Your task to perform on an android device: change keyboard looks Image 0: 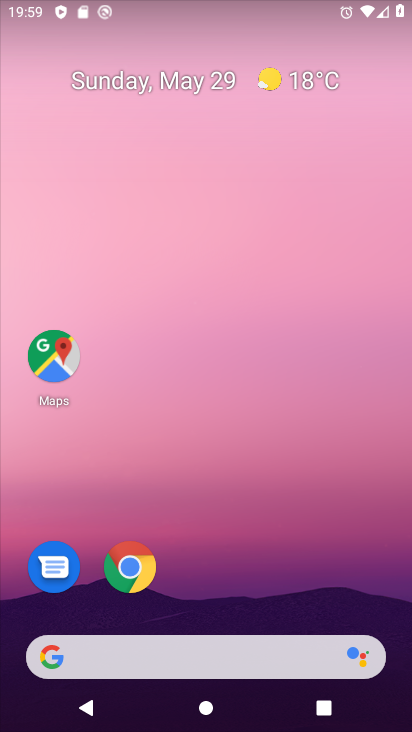
Step 0: drag from (395, 668) to (371, 135)
Your task to perform on an android device: change keyboard looks Image 1: 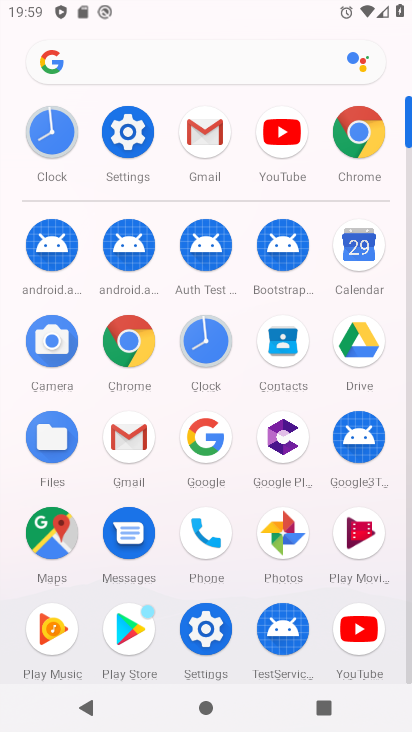
Step 1: click (201, 621)
Your task to perform on an android device: change keyboard looks Image 2: 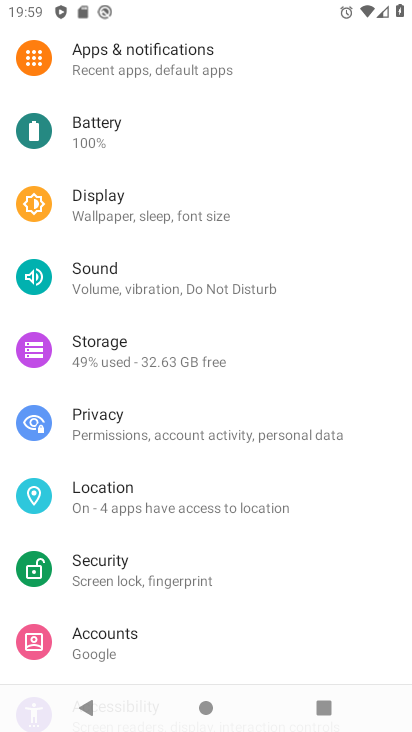
Step 2: drag from (266, 649) to (261, 317)
Your task to perform on an android device: change keyboard looks Image 3: 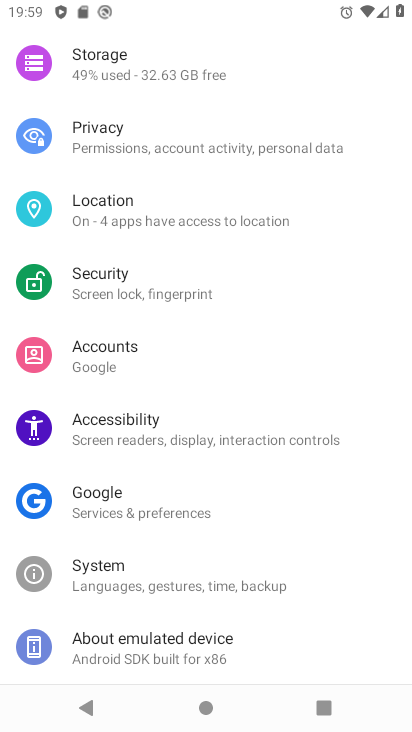
Step 3: click (104, 582)
Your task to perform on an android device: change keyboard looks Image 4: 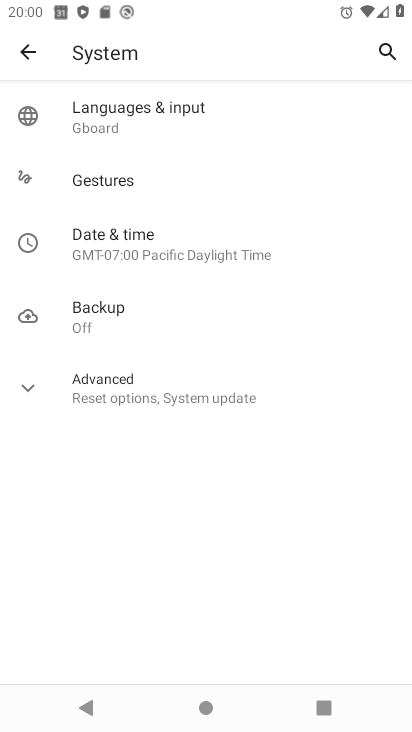
Step 4: click (78, 122)
Your task to perform on an android device: change keyboard looks Image 5: 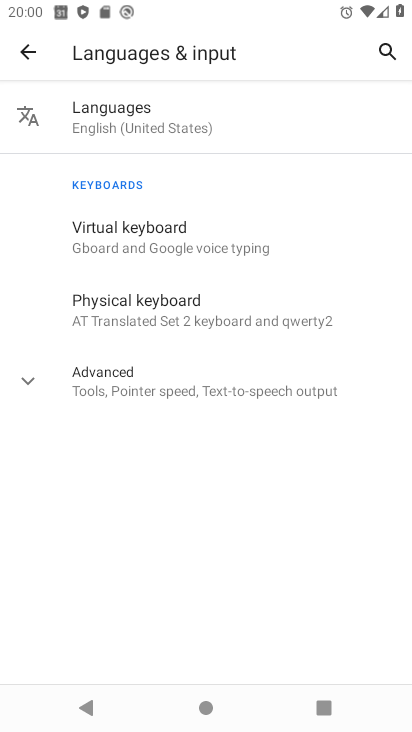
Step 5: click (106, 118)
Your task to perform on an android device: change keyboard looks Image 6: 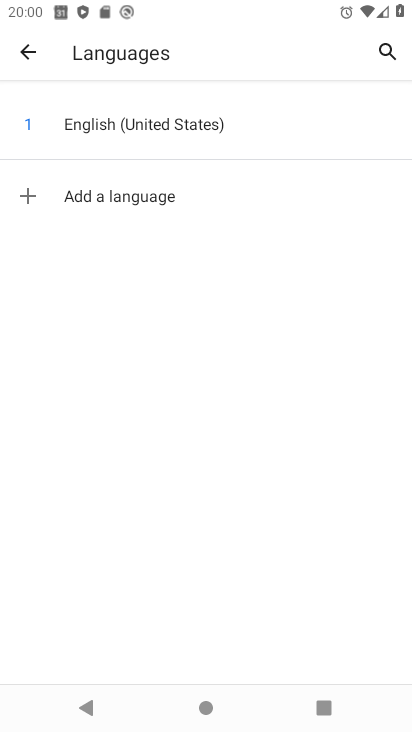
Step 6: click (29, 47)
Your task to perform on an android device: change keyboard looks Image 7: 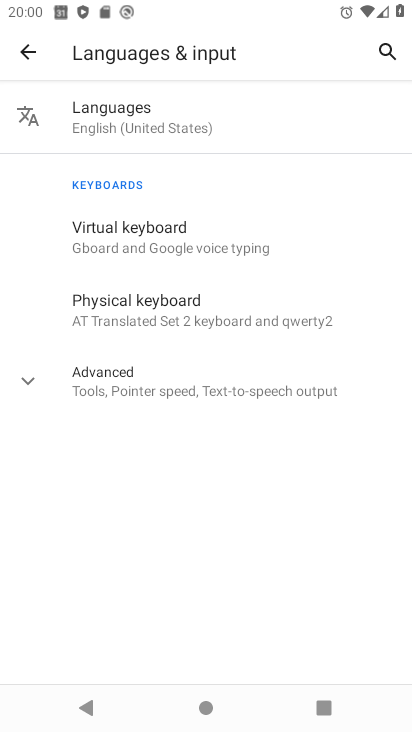
Step 7: click (117, 231)
Your task to perform on an android device: change keyboard looks Image 8: 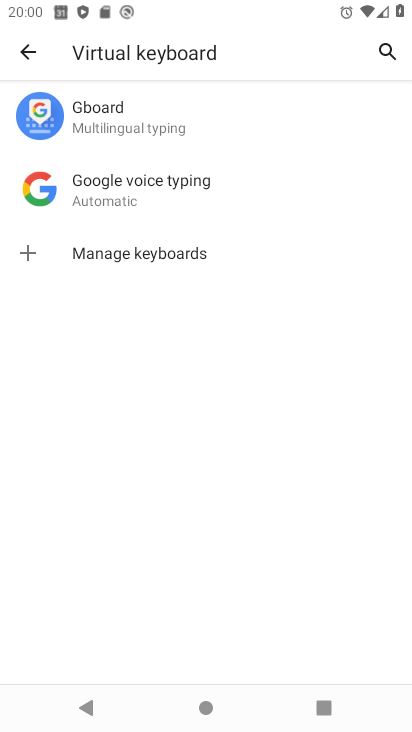
Step 8: click (77, 121)
Your task to perform on an android device: change keyboard looks Image 9: 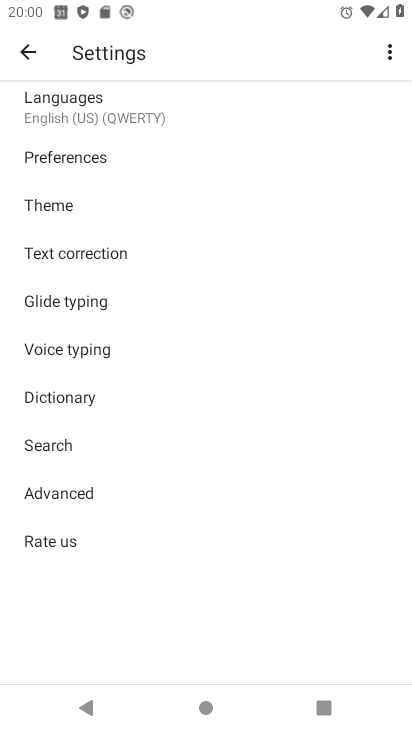
Step 9: click (63, 197)
Your task to perform on an android device: change keyboard looks Image 10: 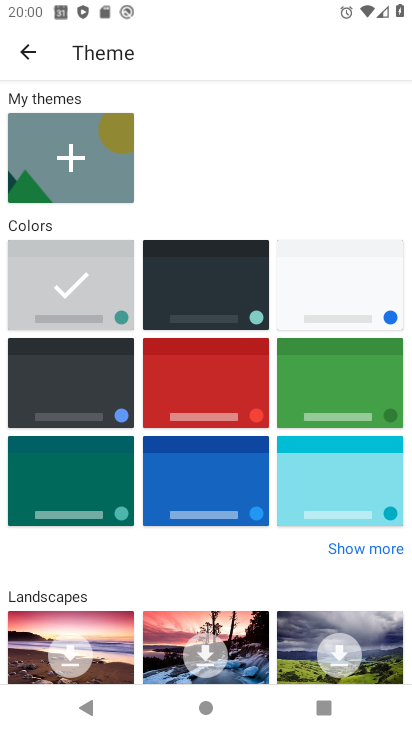
Step 10: click (322, 498)
Your task to perform on an android device: change keyboard looks Image 11: 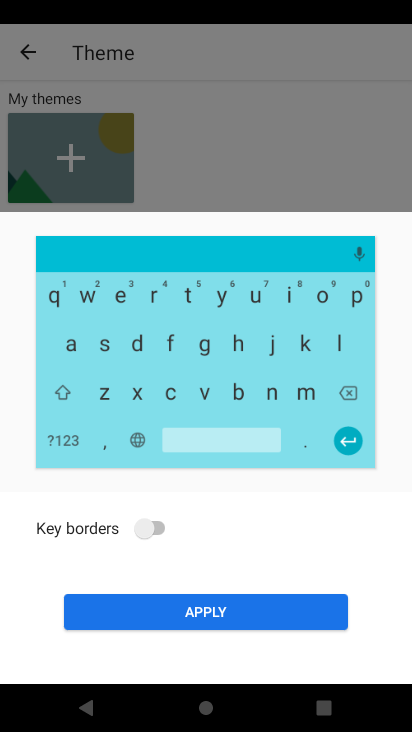
Step 11: click (163, 527)
Your task to perform on an android device: change keyboard looks Image 12: 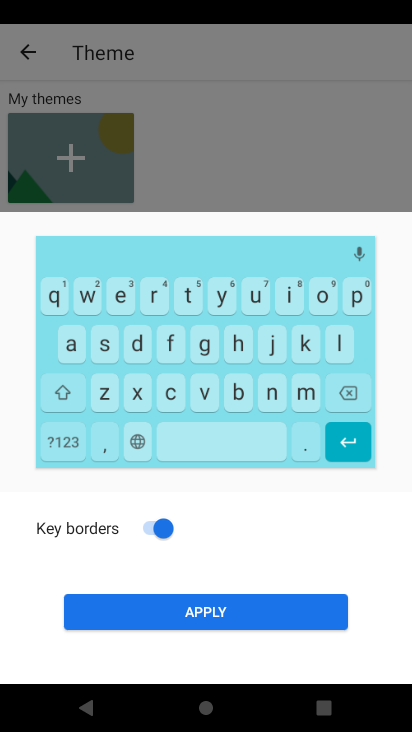
Step 12: click (219, 615)
Your task to perform on an android device: change keyboard looks Image 13: 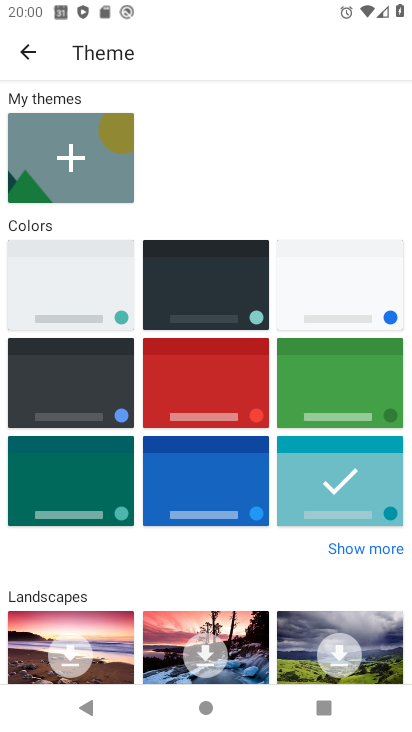
Step 13: task complete